Your task to perform on an android device: Go to battery settings Image 0: 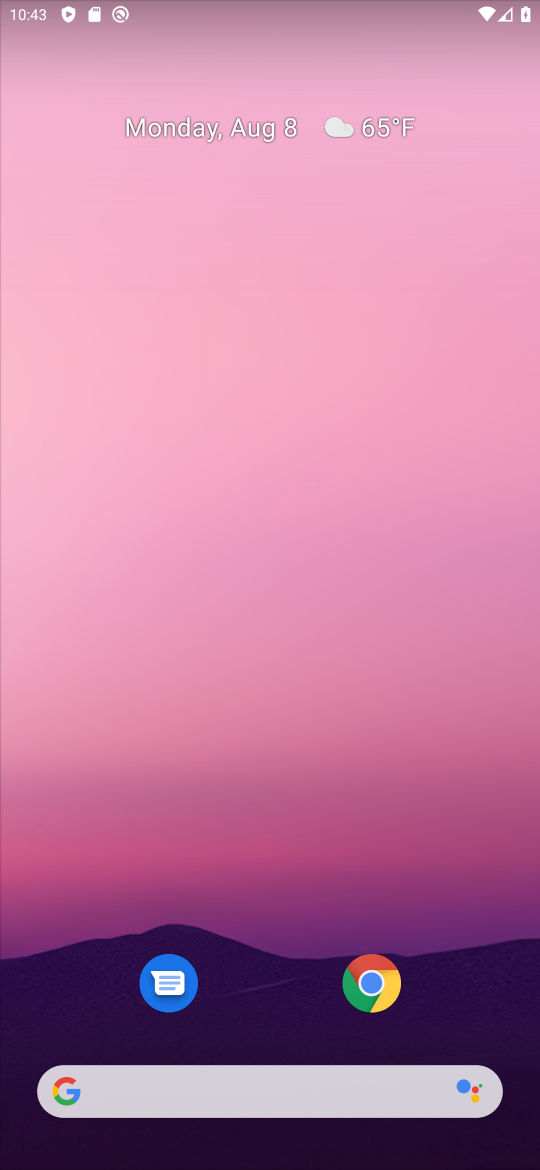
Step 0: drag from (304, 565) to (255, 3)
Your task to perform on an android device: Go to battery settings Image 1: 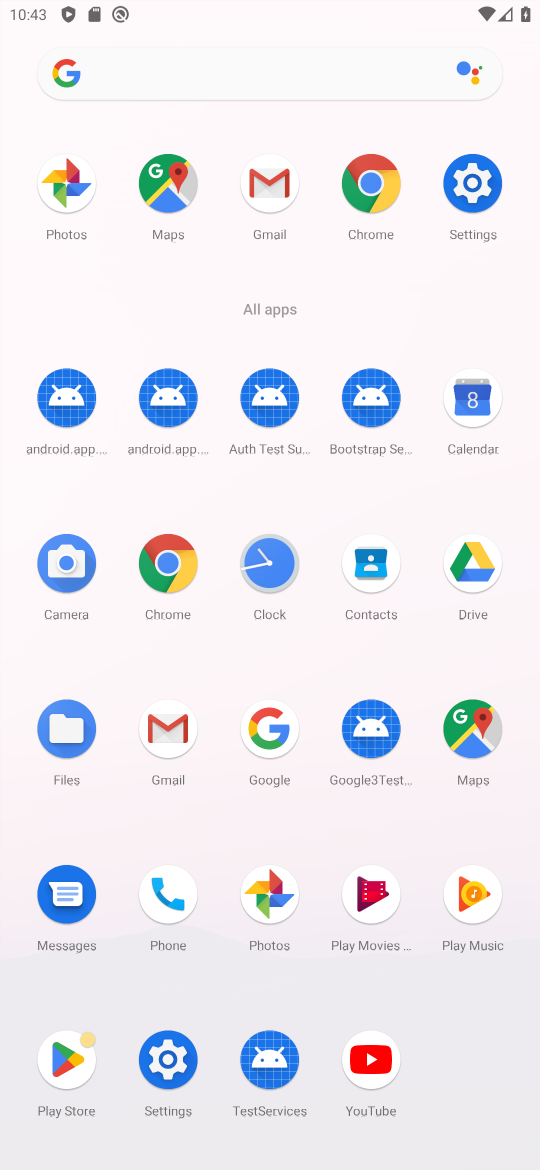
Step 1: click (458, 192)
Your task to perform on an android device: Go to battery settings Image 2: 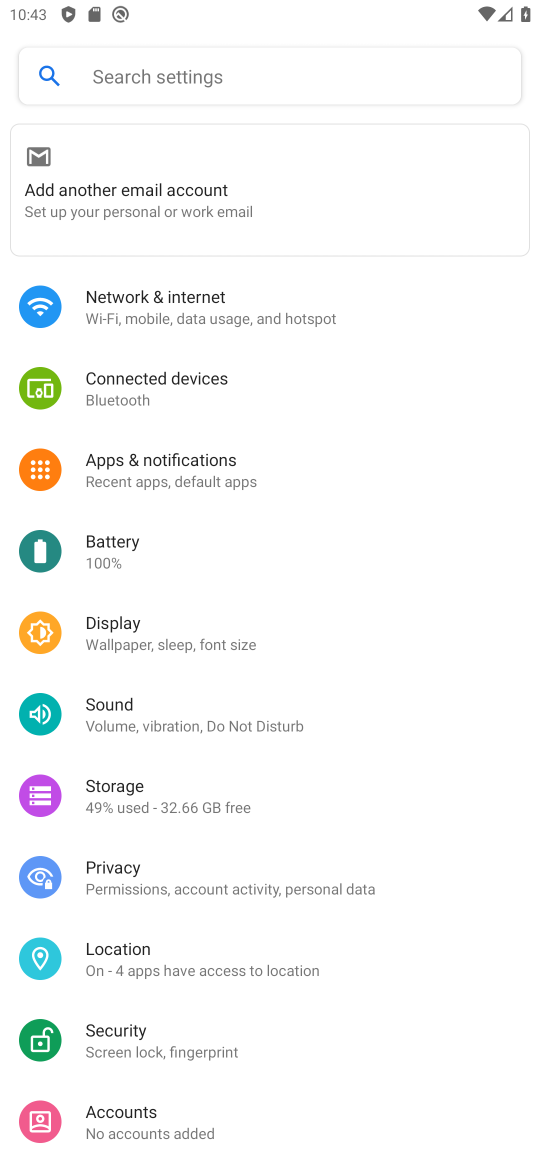
Step 2: click (193, 571)
Your task to perform on an android device: Go to battery settings Image 3: 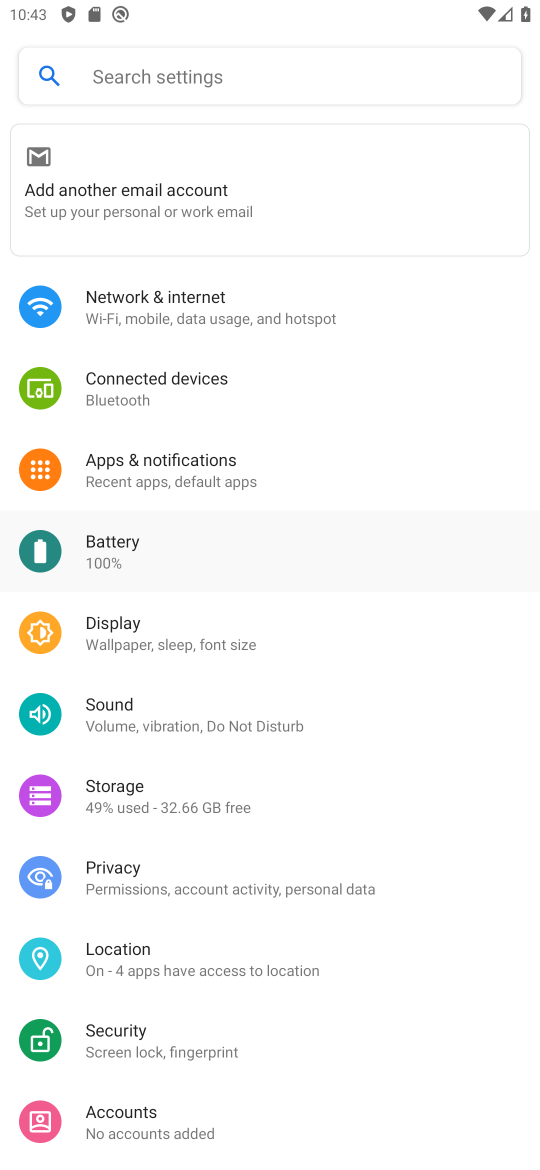
Step 3: task complete